Your task to perform on an android device: turn on the 12-hour format for clock Image 0: 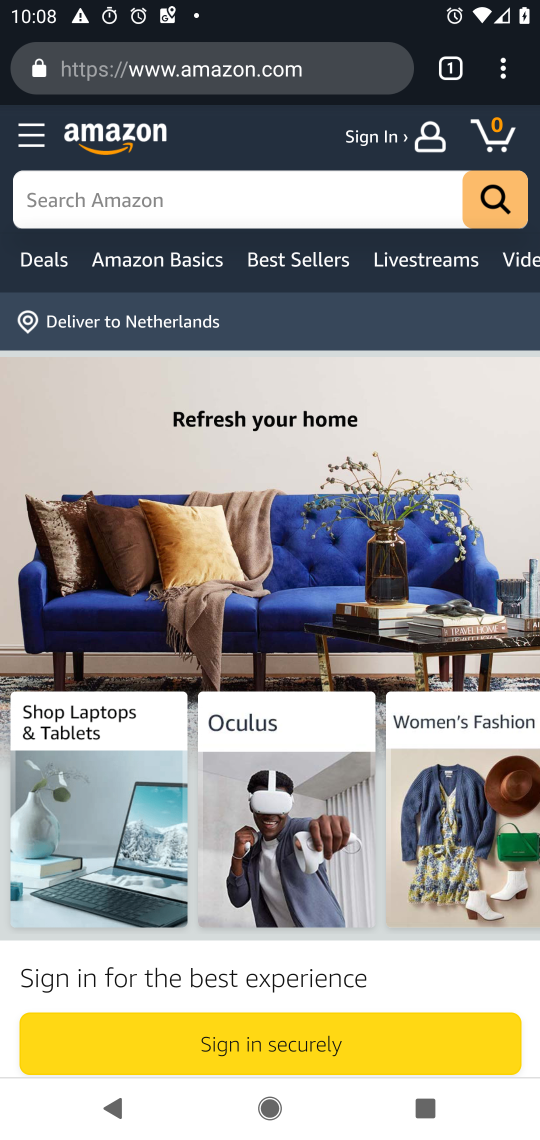
Step 0: press home button
Your task to perform on an android device: turn on the 12-hour format for clock Image 1: 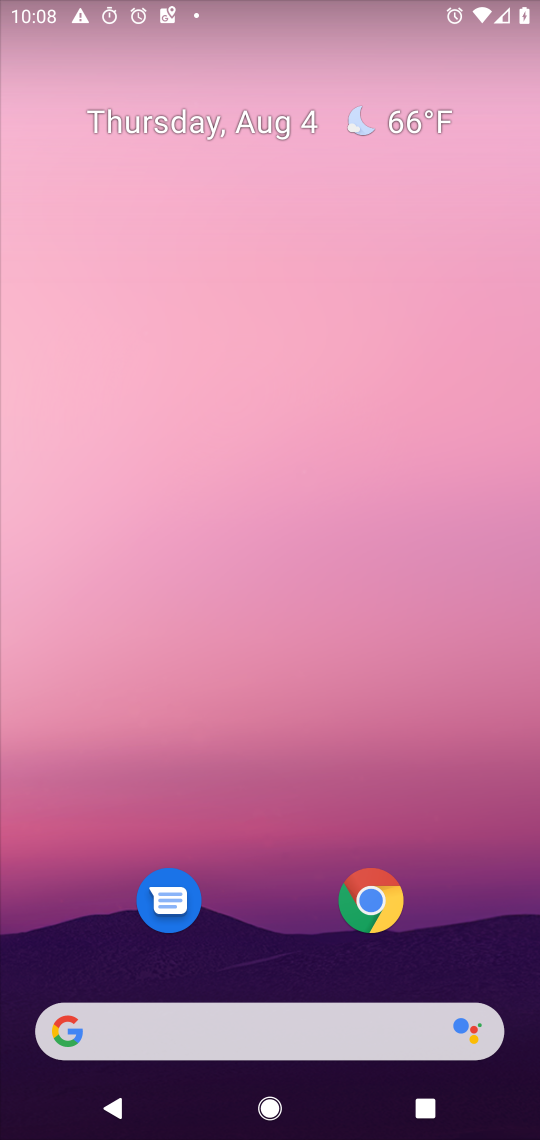
Step 1: drag from (229, 1028) to (438, 138)
Your task to perform on an android device: turn on the 12-hour format for clock Image 2: 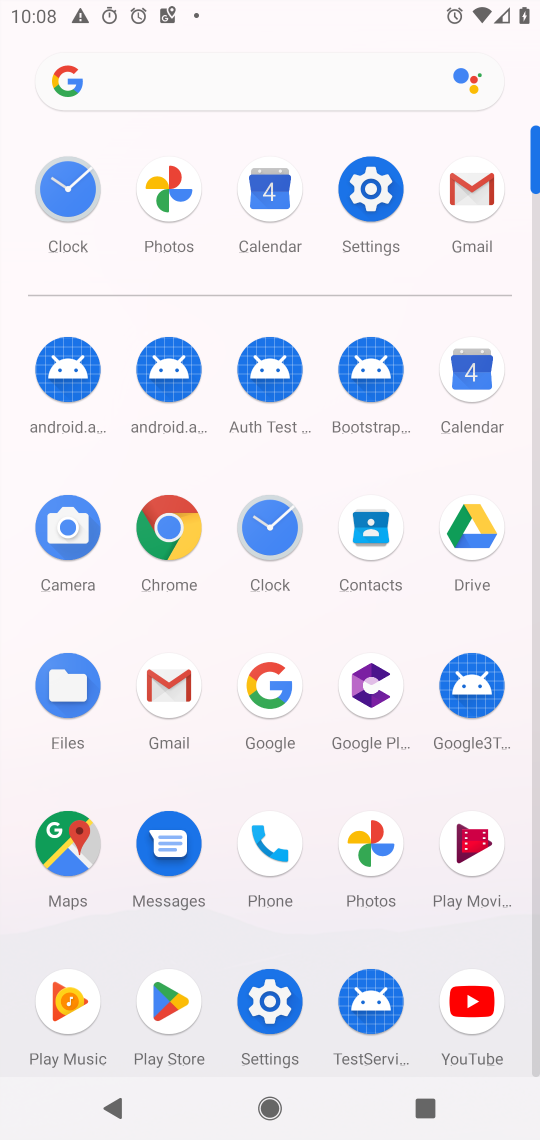
Step 2: click (268, 531)
Your task to perform on an android device: turn on the 12-hour format for clock Image 3: 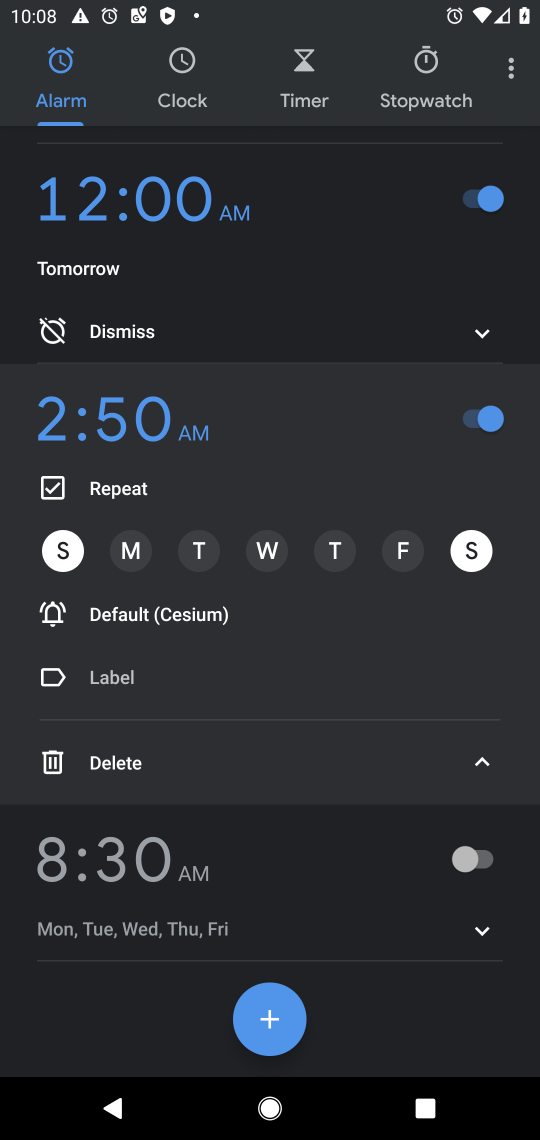
Step 3: click (510, 73)
Your task to perform on an android device: turn on the 12-hour format for clock Image 4: 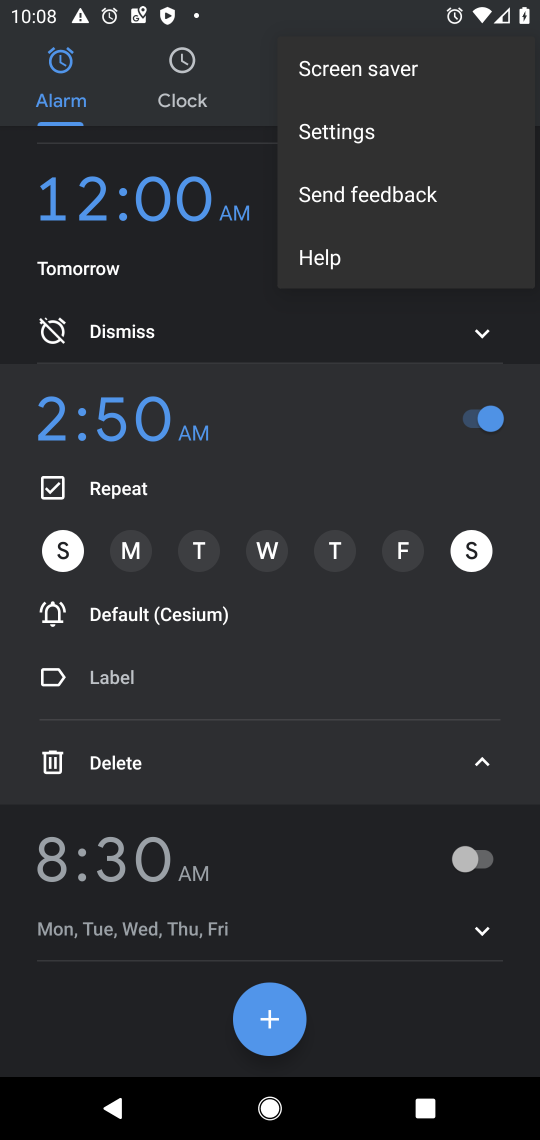
Step 4: click (355, 136)
Your task to perform on an android device: turn on the 12-hour format for clock Image 5: 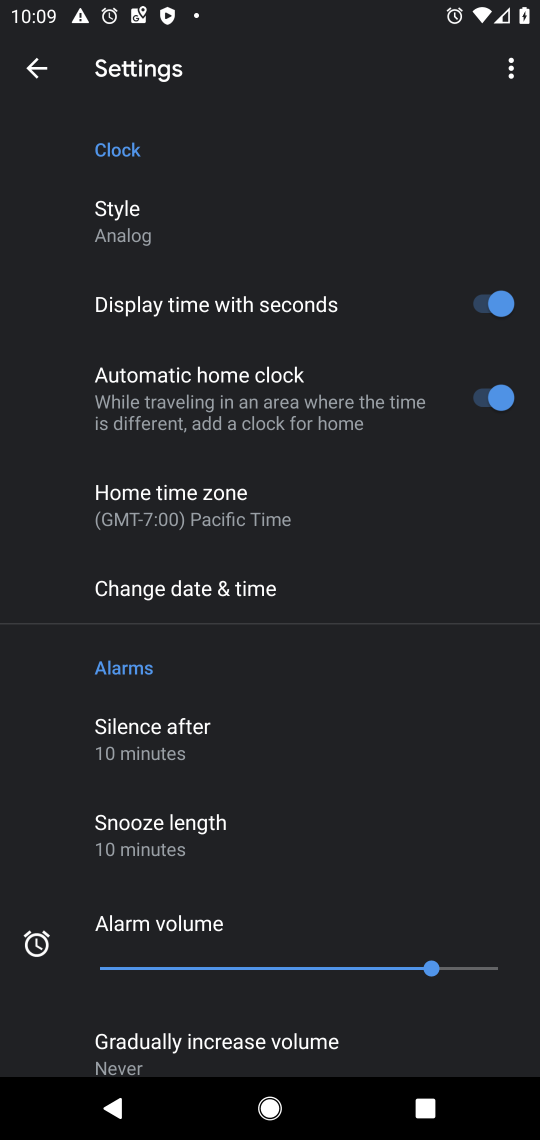
Step 5: click (201, 589)
Your task to perform on an android device: turn on the 12-hour format for clock Image 6: 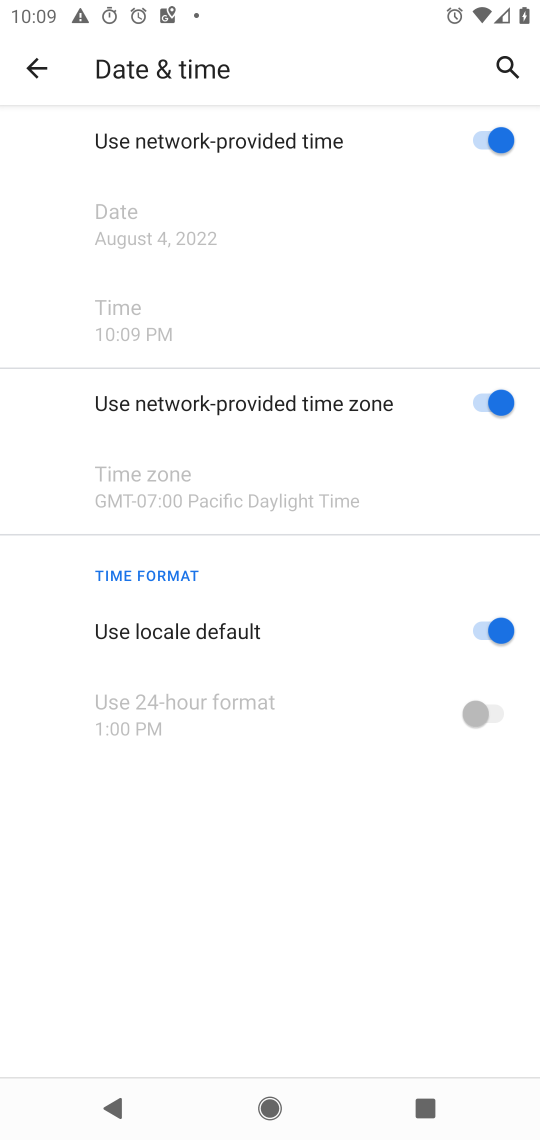
Step 6: task complete